Your task to perform on an android device: Open location settings Image 0: 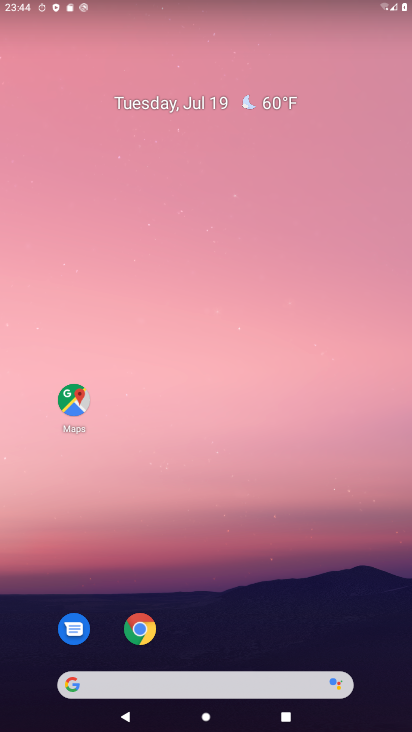
Step 0: drag from (229, 615) to (238, 153)
Your task to perform on an android device: Open location settings Image 1: 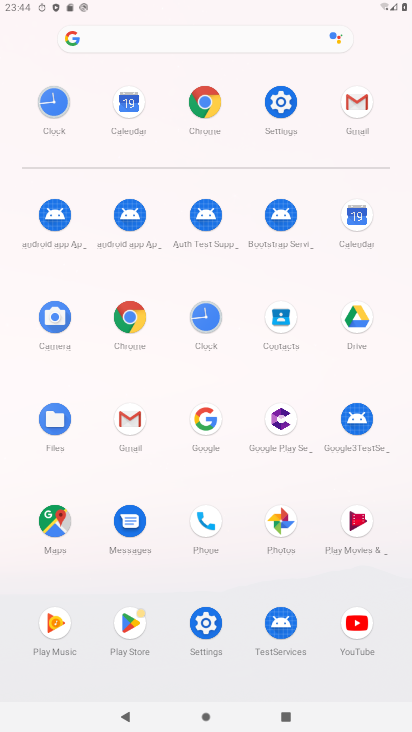
Step 1: click (286, 93)
Your task to perform on an android device: Open location settings Image 2: 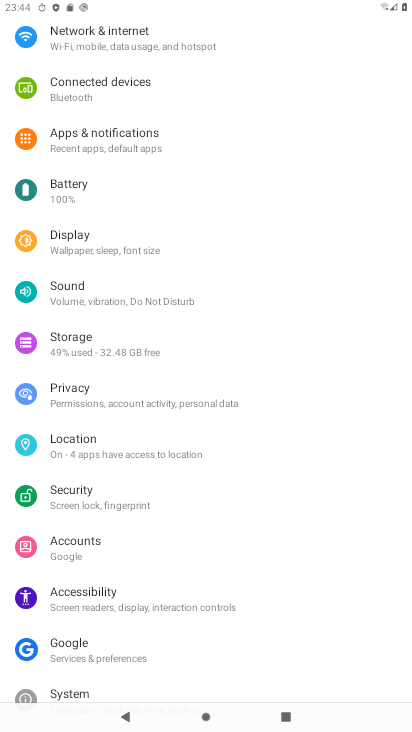
Step 2: click (98, 452)
Your task to perform on an android device: Open location settings Image 3: 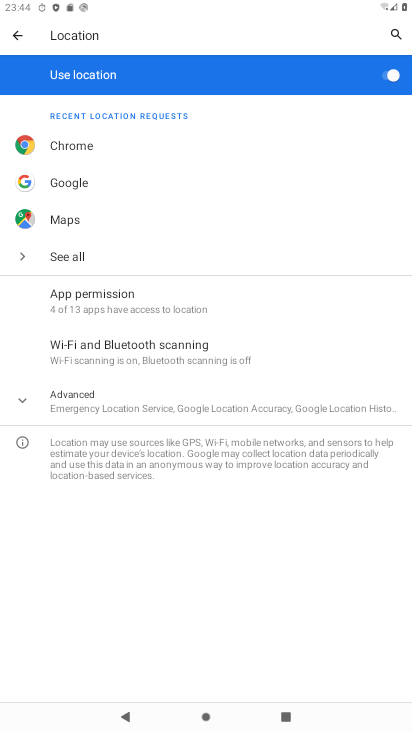
Step 3: task complete